Your task to perform on an android device: Go to Wikipedia Image 0: 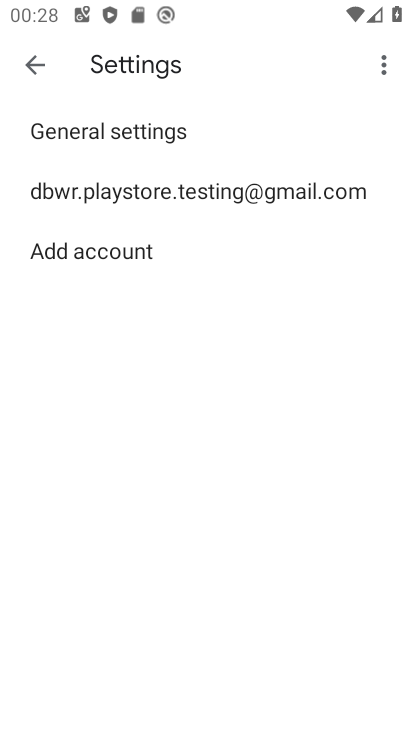
Step 0: press home button
Your task to perform on an android device: Go to Wikipedia Image 1: 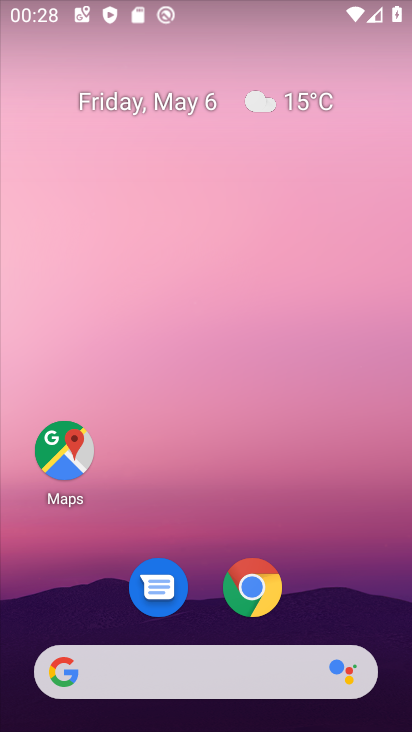
Step 1: click (235, 563)
Your task to perform on an android device: Go to Wikipedia Image 2: 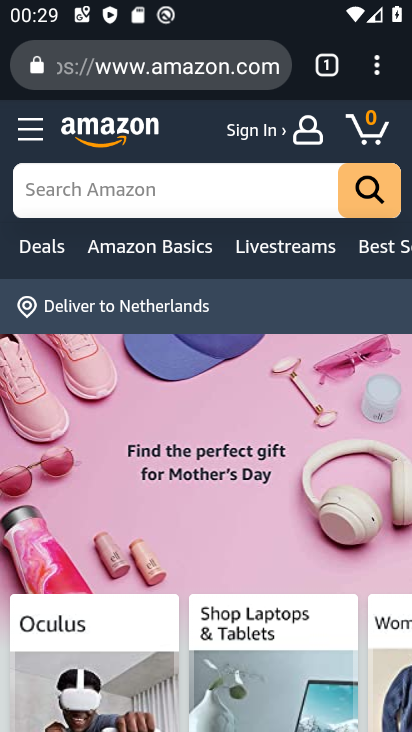
Step 2: click (285, 66)
Your task to perform on an android device: Go to Wikipedia Image 3: 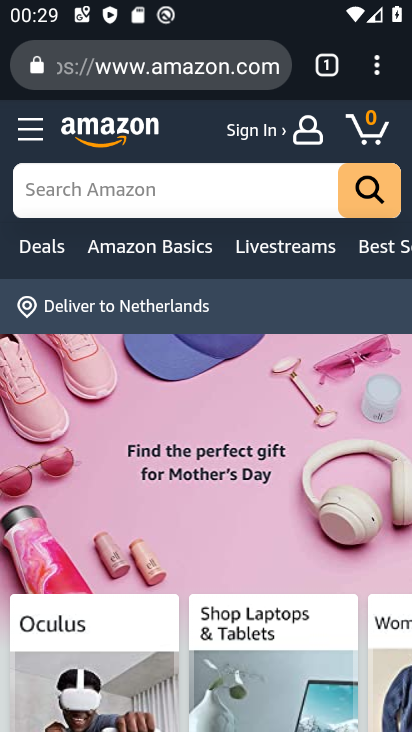
Step 3: click (280, 66)
Your task to perform on an android device: Go to Wikipedia Image 4: 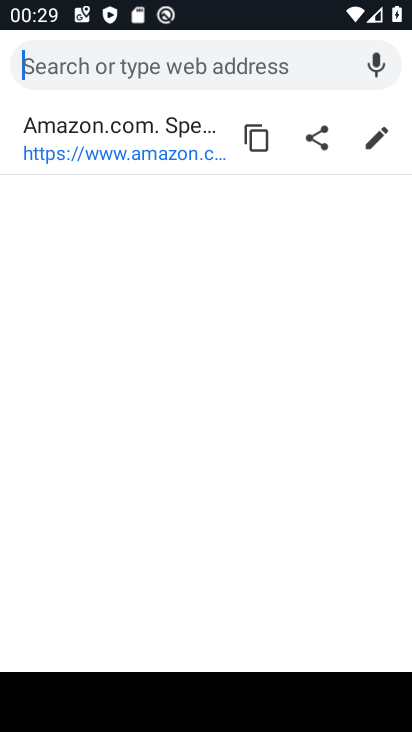
Step 4: type "Wikipedia"
Your task to perform on an android device: Go to Wikipedia Image 5: 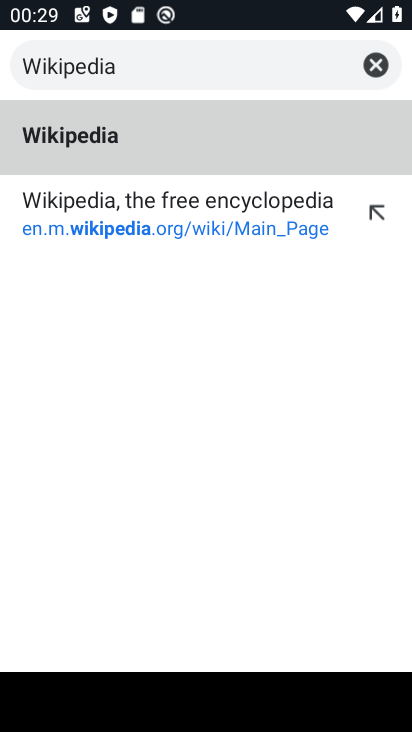
Step 5: click (180, 156)
Your task to perform on an android device: Go to Wikipedia Image 6: 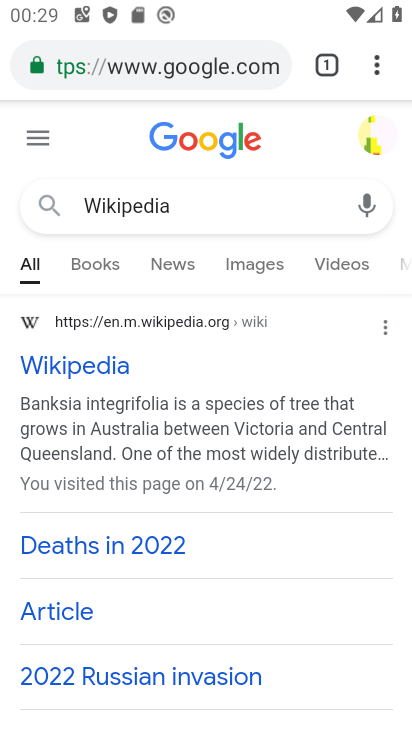
Step 6: task complete